Your task to perform on an android device: see tabs open on other devices in the chrome app Image 0: 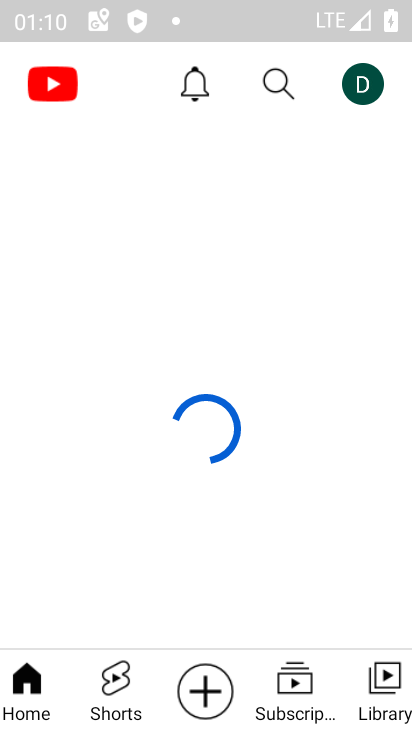
Step 0: press home button
Your task to perform on an android device: see tabs open on other devices in the chrome app Image 1: 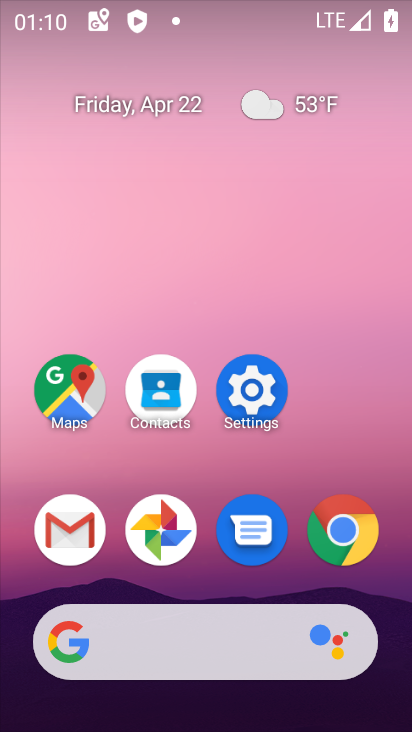
Step 1: click (341, 527)
Your task to perform on an android device: see tabs open on other devices in the chrome app Image 2: 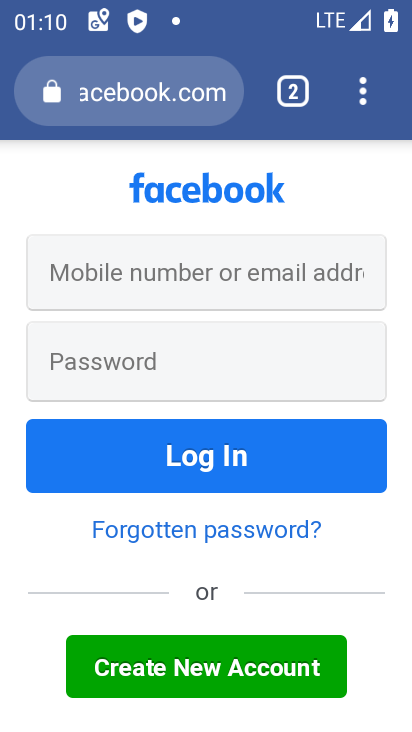
Step 2: click (362, 96)
Your task to perform on an android device: see tabs open on other devices in the chrome app Image 3: 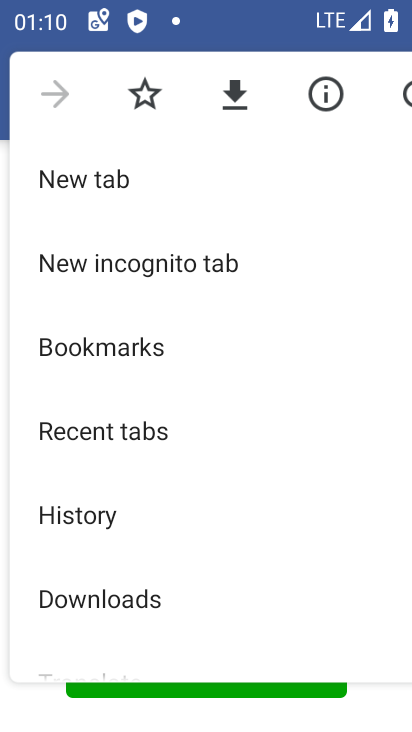
Step 3: click (134, 424)
Your task to perform on an android device: see tabs open on other devices in the chrome app Image 4: 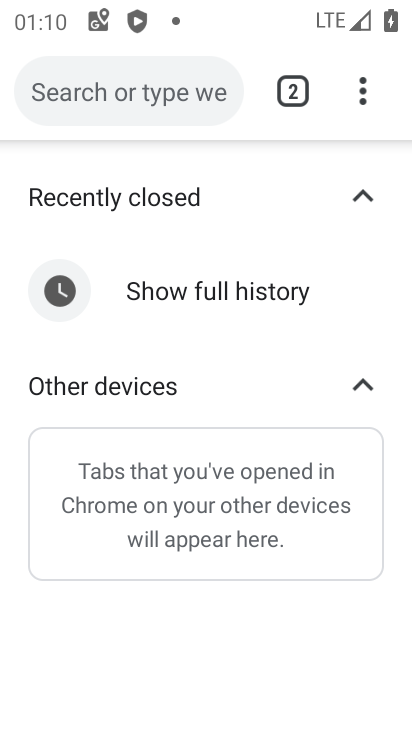
Step 4: task complete